Your task to perform on an android device: turn off notifications settings in the gmail app Image 0: 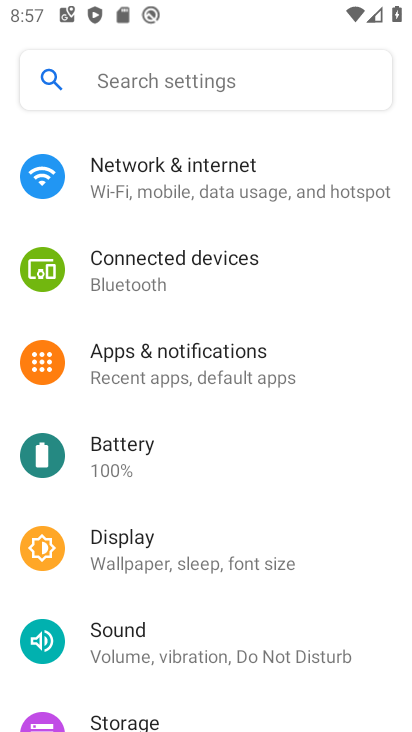
Step 0: click (249, 382)
Your task to perform on an android device: turn off notifications settings in the gmail app Image 1: 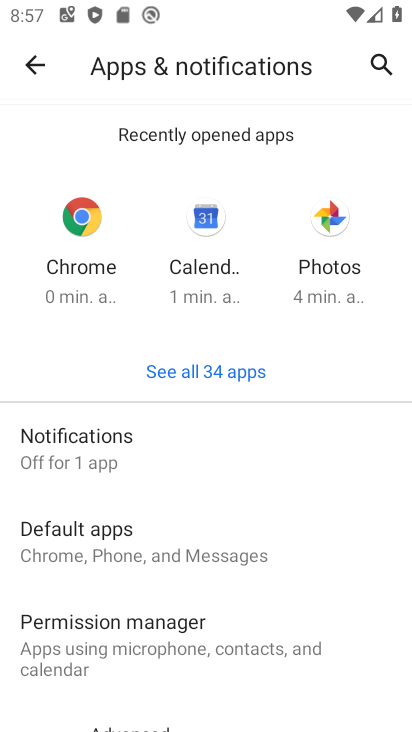
Step 1: drag from (317, 294) to (31, 255)
Your task to perform on an android device: turn off notifications settings in the gmail app Image 2: 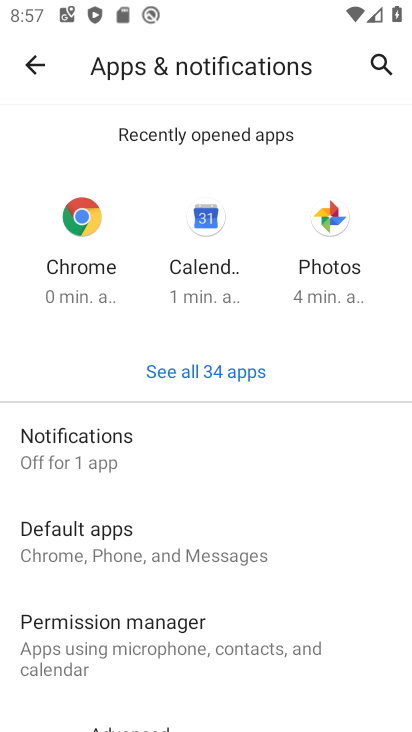
Step 2: drag from (321, 280) to (0, 308)
Your task to perform on an android device: turn off notifications settings in the gmail app Image 3: 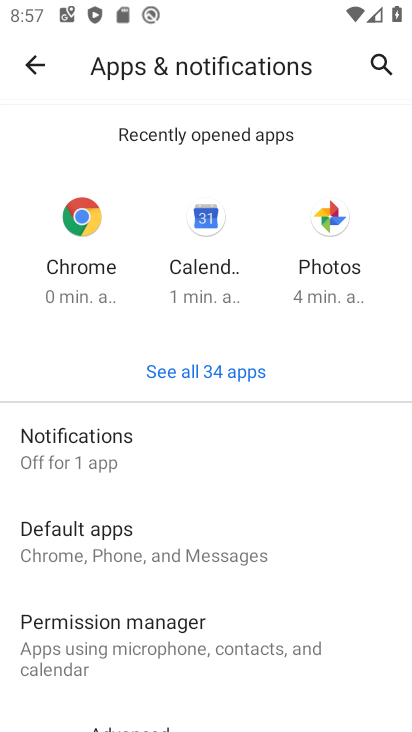
Step 3: press home button
Your task to perform on an android device: turn off notifications settings in the gmail app Image 4: 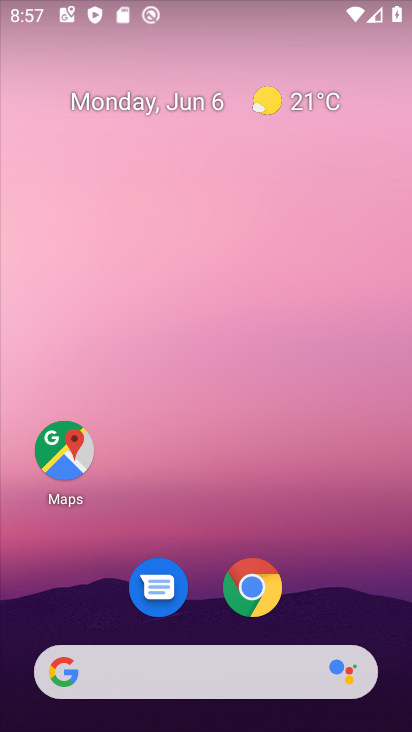
Step 4: drag from (251, 707) to (333, 108)
Your task to perform on an android device: turn off notifications settings in the gmail app Image 5: 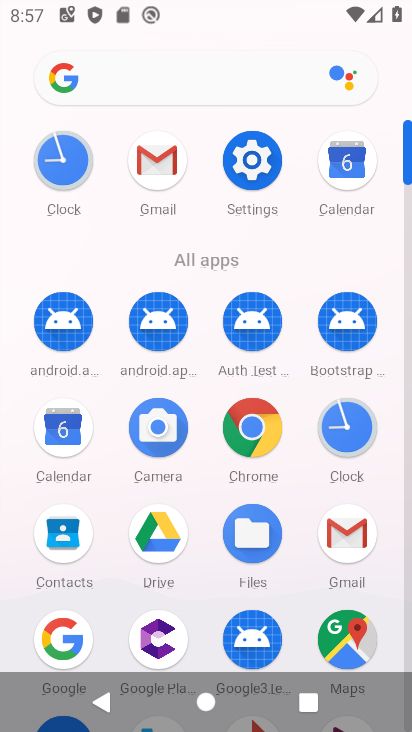
Step 5: click (341, 511)
Your task to perform on an android device: turn off notifications settings in the gmail app Image 6: 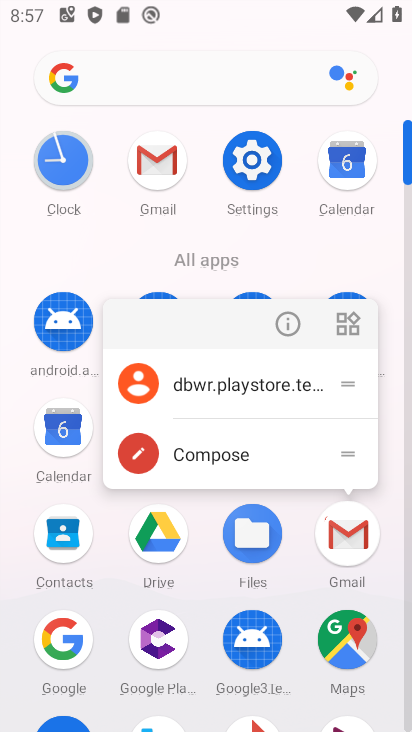
Step 6: click (291, 325)
Your task to perform on an android device: turn off notifications settings in the gmail app Image 7: 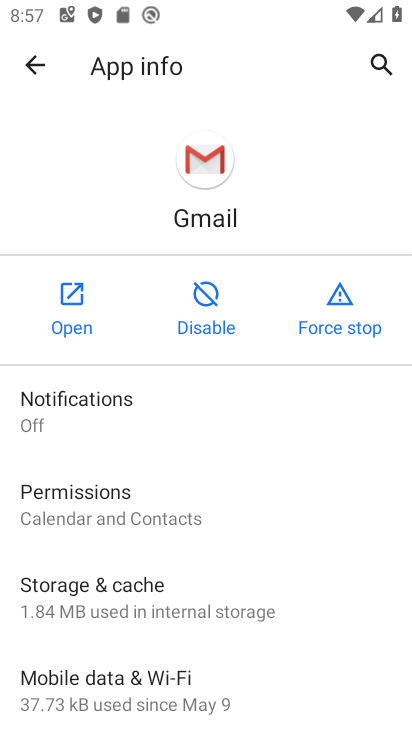
Step 7: click (97, 419)
Your task to perform on an android device: turn off notifications settings in the gmail app Image 8: 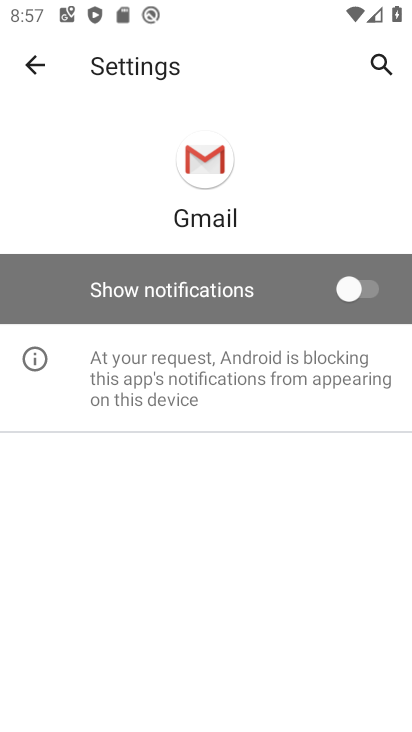
Step 8: task complete